Your task to perform on an android device: Show me popular games on the Play Store Image 0: 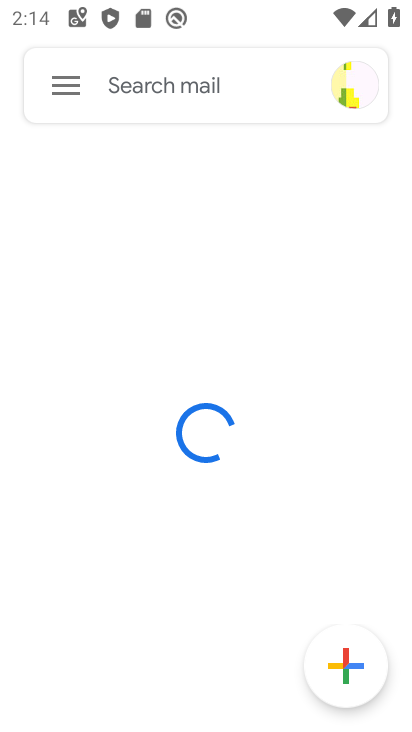
Step 0: press home button
Your task to perform on an android device: Show me popular games on the Play Store Image 1: 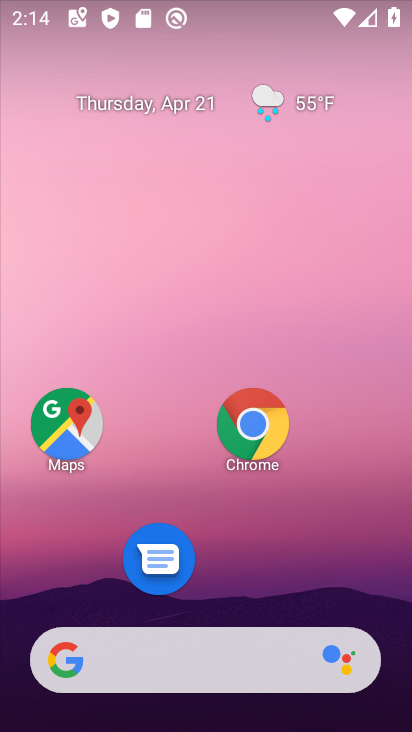
Step 1: drag from (243, 519) to (243, 157)
Your task to perform on an android device: Show me popular games on the Play Store Image 2: 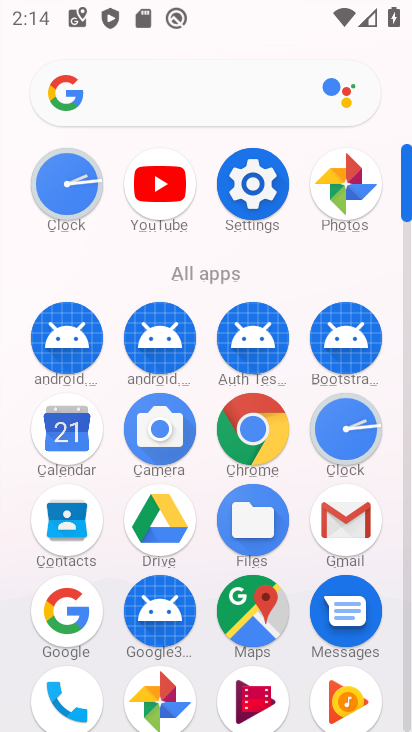
Step 2: drag from (109, 648) to (110, 338)
Your task to perform on an android device: Show me popular games on the Play Store Image 3: 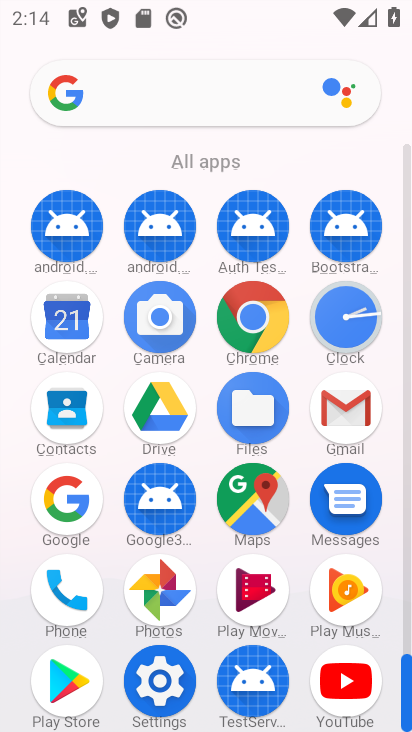
Step 3: click (70, 682)
Your task to perform on an android device: Show me popular games on the Play Store Image 4: 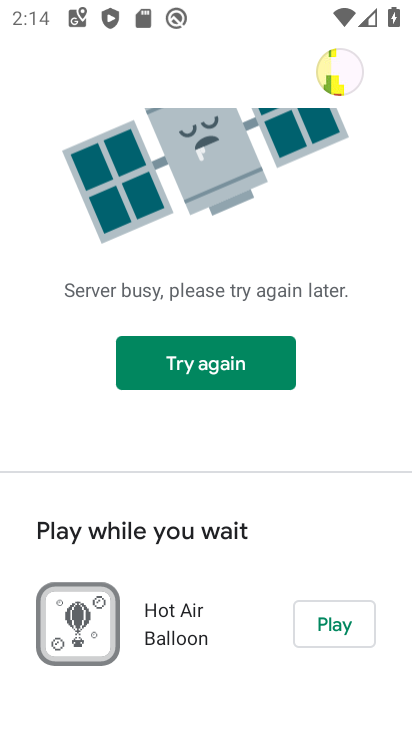
Step 4: click (230, 367)
Your task to perform on an android device: Show me popular games on the Play Store Image 5: 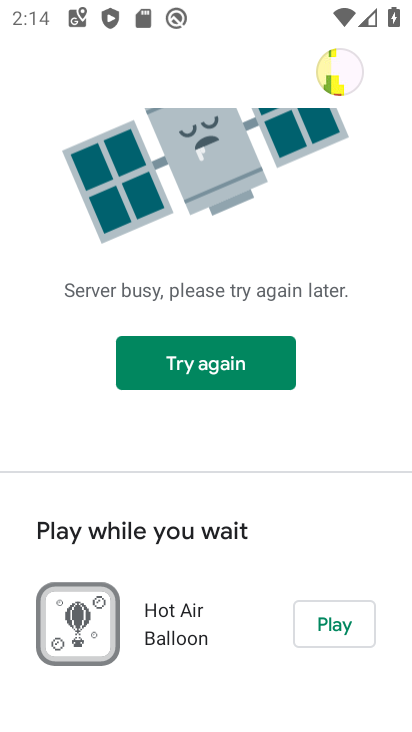
Step 5: task complete